Your task to perform on an android device: Open the stopwatch Image 0: 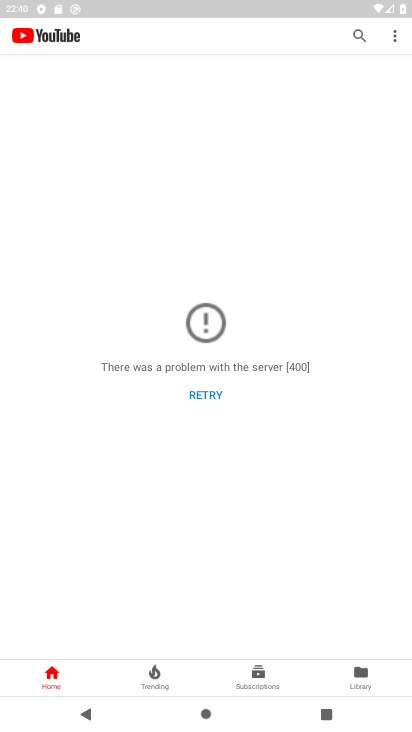
Step 0: press home button
Your task to perform on an android device: Open the stopwatch Image 1: 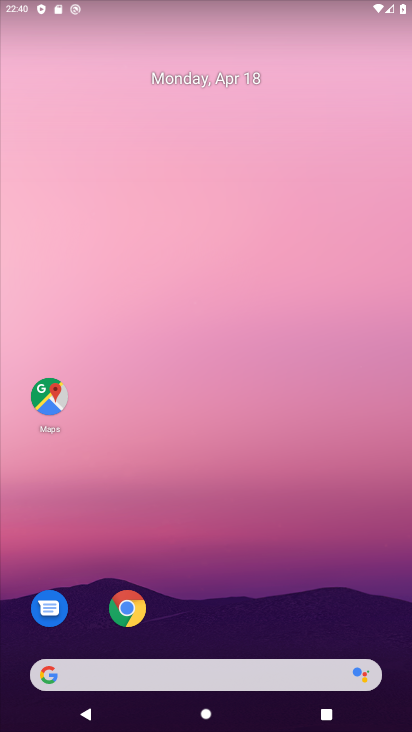
Step 1: drag from (256, 605) to (282, 198)
Your task to perform on an android device: Open the stopwatch Image 2: 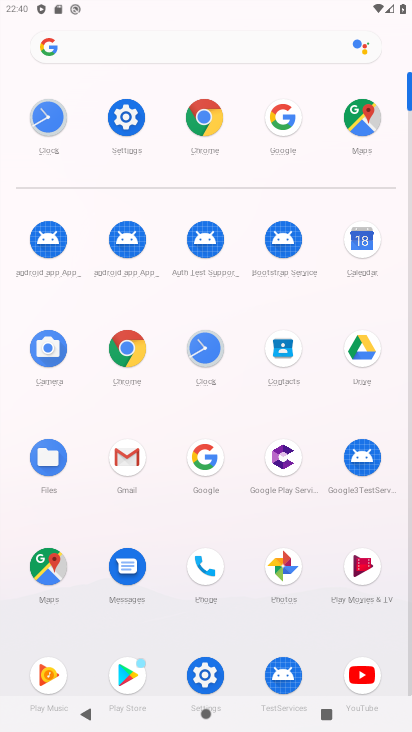
Step 2: click (205, 348)
Your task to perform on an android device: Open the stopwatch Image 3: 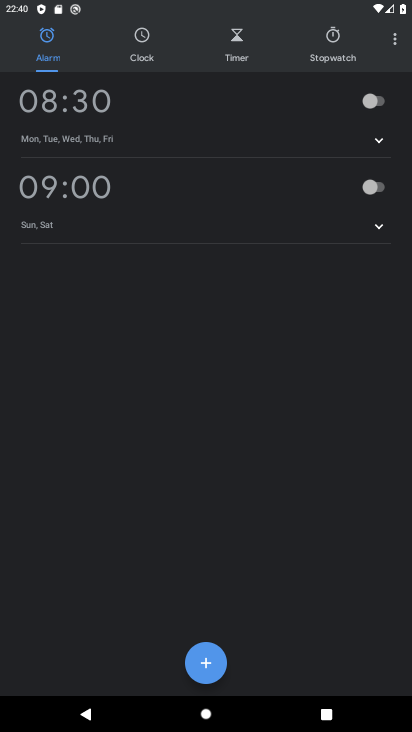
Step 3: click (334, 44)
Your task to perform on an android device: Open the stopwatch Image 4: 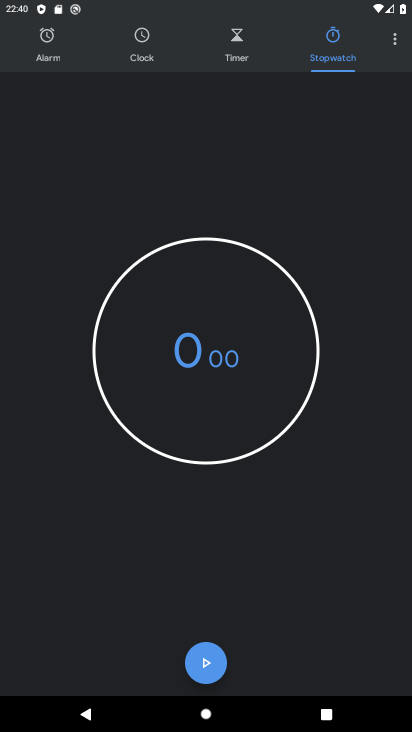
Step 4: click (212, 658)
Your task to perform on an android device: Open the stopwatch Image 5: 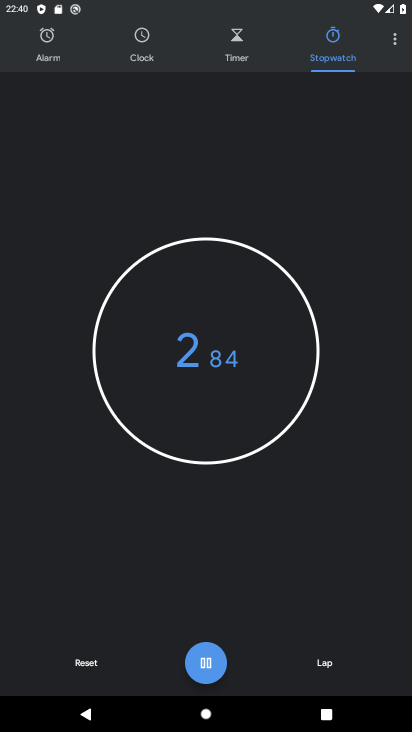
Step 5: task complete